Your task to perform on an android device: Empty the shopping cart on target. Add "beats solo 3" to the cart on target, then select checkout. Image 0: 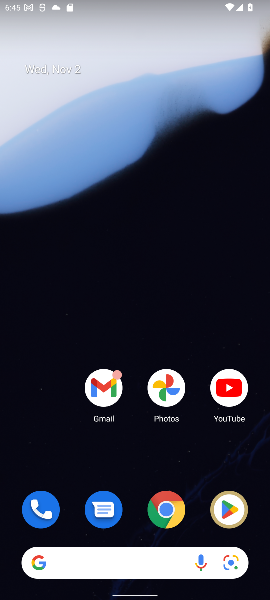
Step 0: click (151, 560)
Your task to perform on an android device: Empty the shopping cart on target. Add "beats solo 3" to the cart on target, then select checkout. Image 1: 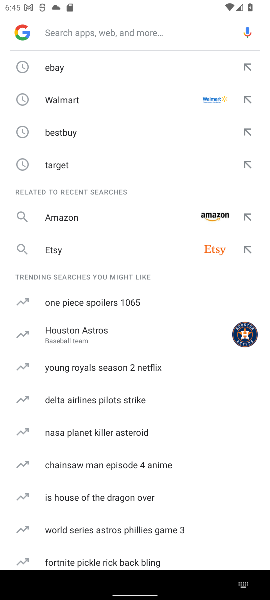
Step 1: click (63, 165)
Your task to perform on an android device: Empty the shopping cart on target. Add "beats solo 3" to the cart on target, then select checkout. Image 2: 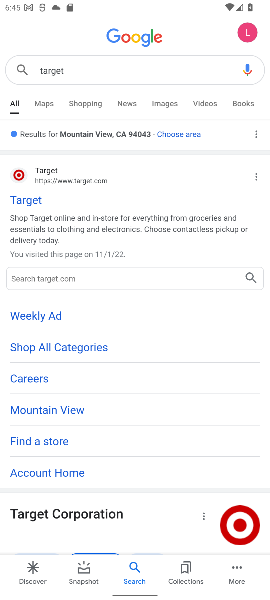
Step 2: click (30, 200)
Your task to perform on an android device: Empty the shopping cart on target. Add "beats solo 3" to the cart on target, then select checkout. Image 3: 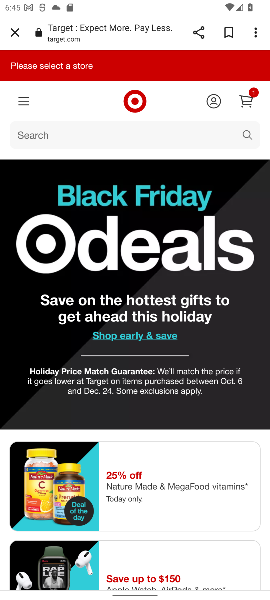
Step 3: click (96, 142)
Your task to perform on an android device: Empty the shopping cart on target. Add "beats solo 3" to the cart on target, then select checkout. Image 4: 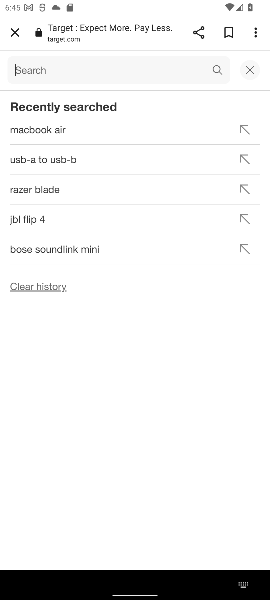
Step 4: click (248, 69)
Your task to perform on an android device: Empty the shopping cart on target. Add "beats solo 3" to the cart on target, then select checkout. Image 5: 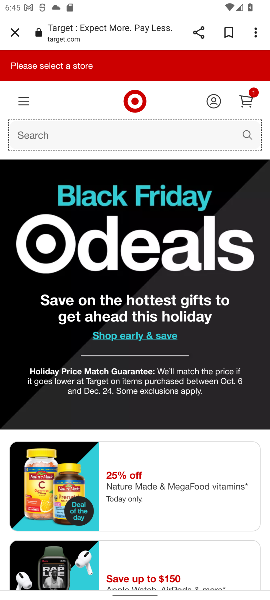
Step 5: click (252, 96)
Your task to perform on an android device: Empty the shopping cart on target. Add "beats solo 3" to the cart on target, then select checkout. Image 6: 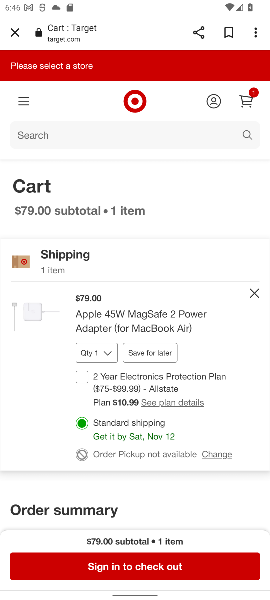
Step 6: click (257, 292)
Your task to perform on an android device: Empty the shopping cart on target. Add "beats solo 3" to the cart on target, then select checkout. Image 7: 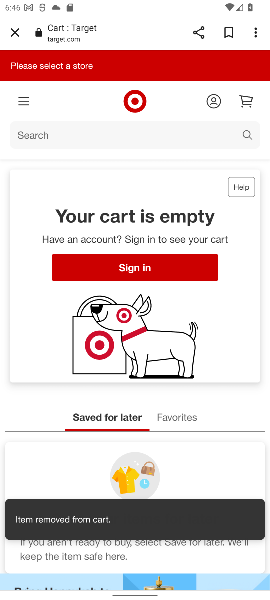
Step 7: click (82, 129)
Your task to perform on an android device: Empty the shopping cart on target. Add "beats solo 3" to the cart on target, then select checkout. Image 8: 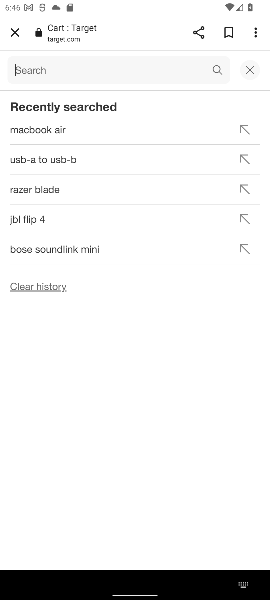
Step 8: type "beats solo 3"
Your task to perform on an android device: Empty the shopping cart on target. Add "beats solo 3" to the cart on target, then select checkout. Image 9: 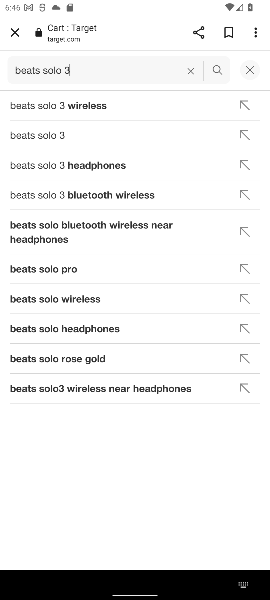
Step 9: click (52, 130)
Your task to perform on an android device: Empty the shopping cart on target. Add "beats solo 3" to the cart on target, then select checkout. Image 10: 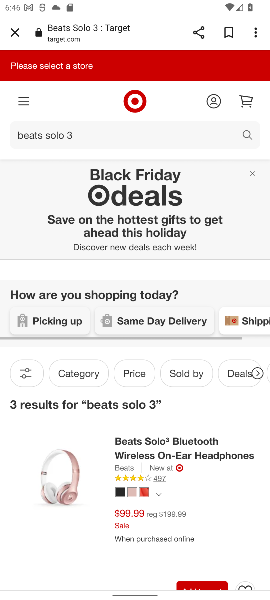
Step 10: drag from (210, 494) to (210, 359)
Your task to perform on an android device: Empty the shopping cart on target. Add "beats solo 3" to the cart on target, then select checkout. Image 11: 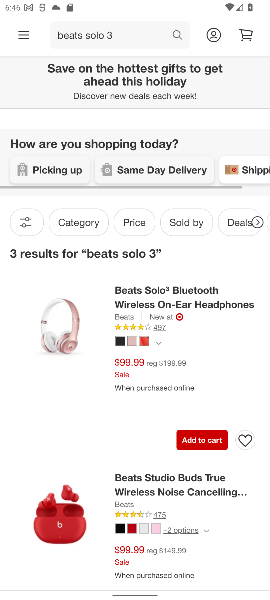
Step 11: click (195, 438)
Your task to perform on an android device: Empty the shopping cart on target. Add "beats solo 3" to the cart on target, then select checkout. Image 12: 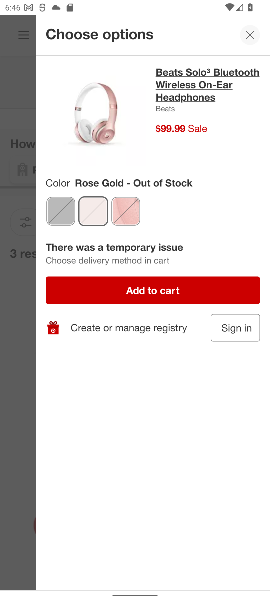
Step 12: click (149, 292)
Your task to perform on an android device: Empty the shopping cart on target. Add "beats solo 3" to the cart on target, then select checkout. Image 13: 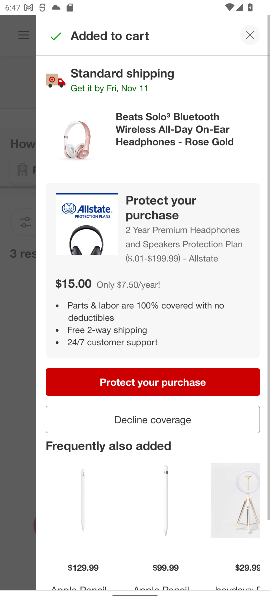
Step 13: click (248, 38)
Your task to perform on an android device: Empty the shopping cart on target. Add "beats solo 3" to the cart on target, then select checkout. Image 14: 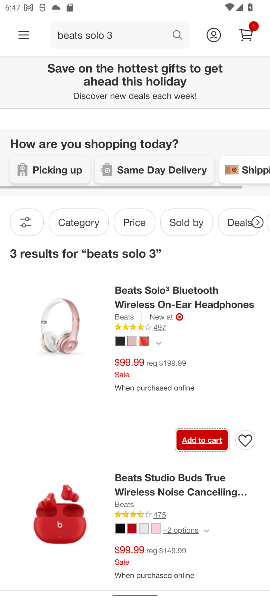
Step 14: click (248, 28)
Your task to perform on an android device: Empty the shopping cart on target. Add "beats solo 3" to the cart on target, then select checkout. Image 15: 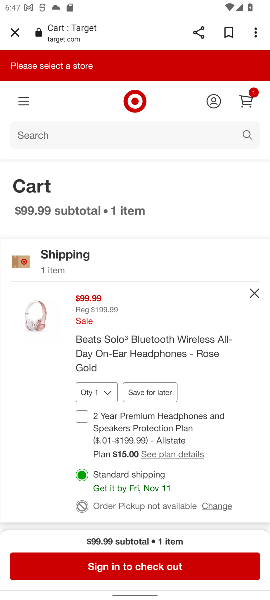
Step 15: click (132, 568)
Your task to perform on an android device: Empty the shopping cart on target. Add "beats solo 3" to the cart on target, then select checkout. Image 16: 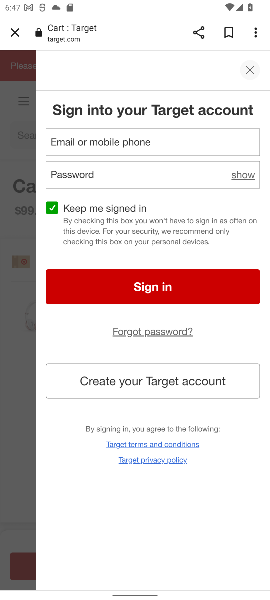
Step 16: task complete